Your task to perform on an android device: check the backup settings in the google photos Image 0: 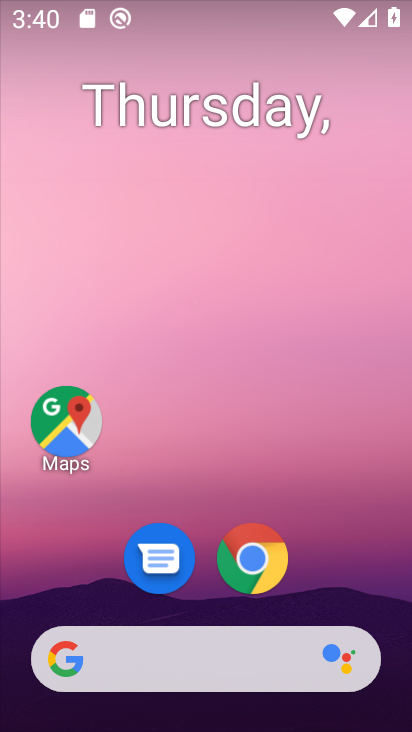
Step 0: drag from (293, 509) to (281, 135)
Your task to perform on an android device: check the backup settings in the google photos Image 1: 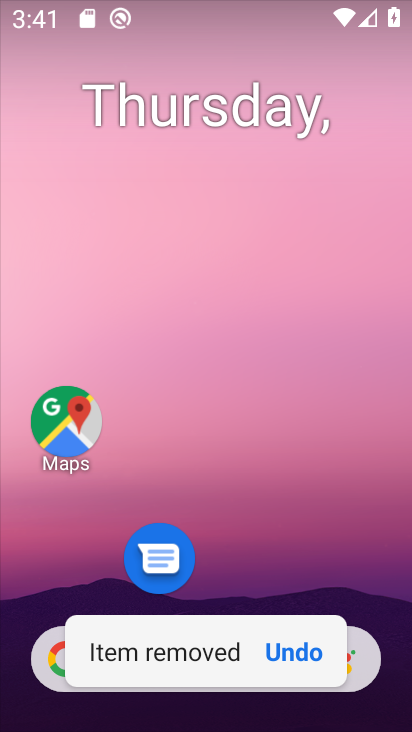
Step 1: drag from (322, 531) to (327, 37)
Your task to perform on an android device: check the backup settings in the google photos Image 2: 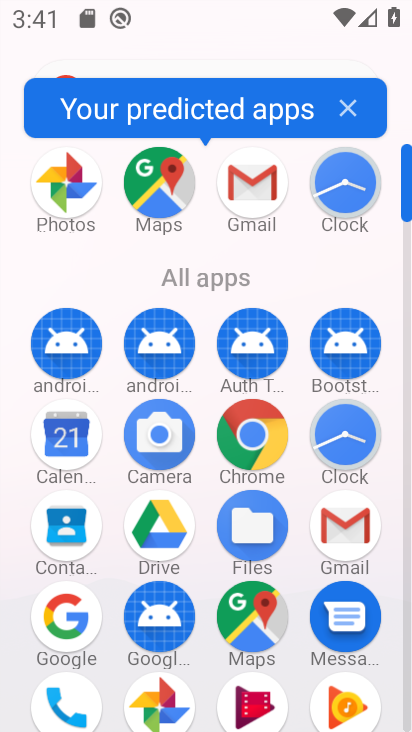
Step 2: click (175, 704)
Your task to perform on an android device: check the backup settings in the google photos Image 3: 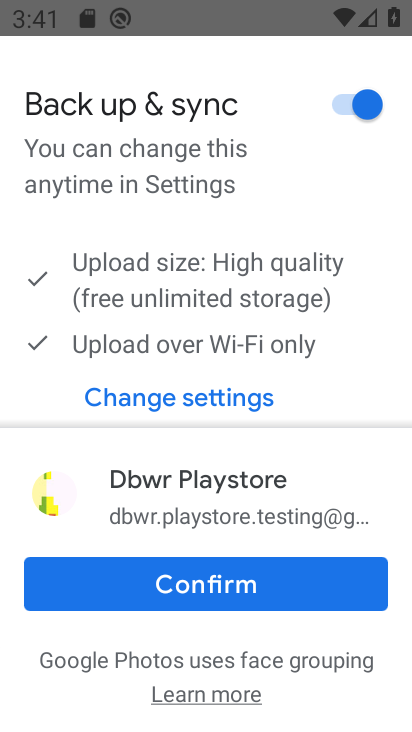
Step 3: click (215, 591)
Your task to perform on an android device: check the backup settings in the google photos Image 4: 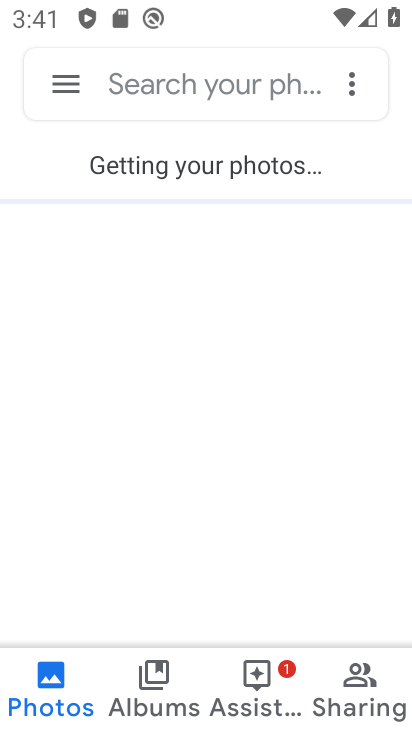
Step 4: click (69, 95)
Your task to perform on an android device: check the backup settings in the google photos Image 5: 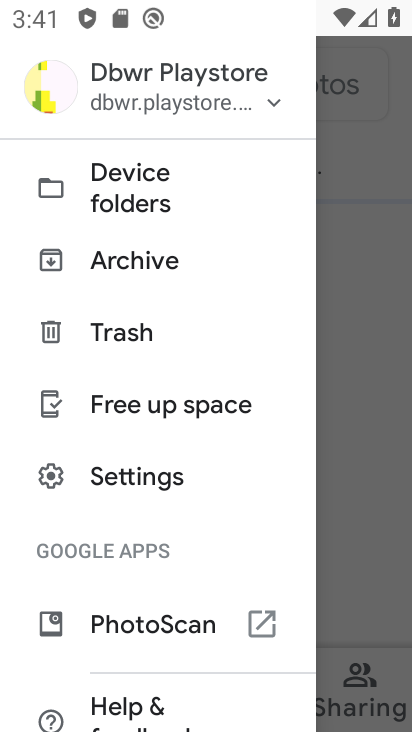
Step 5: click (117, 482)
Your task to perform on an android device: check the backup settings in the google photos Image 6: 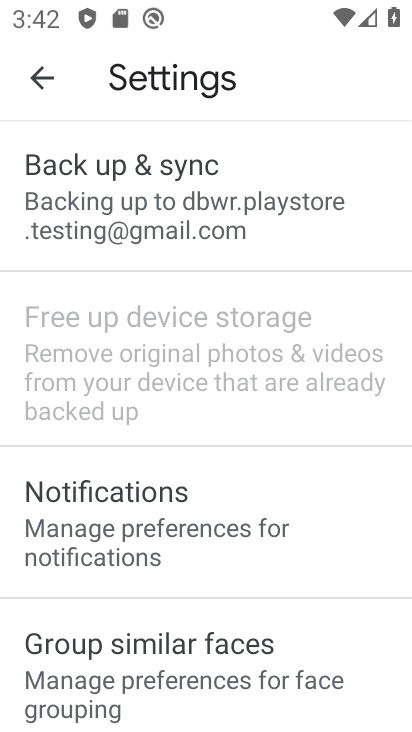
Step 6: click (119, 233)
Your task to perform on an android device: check the backup settings in the google photos Image 7: 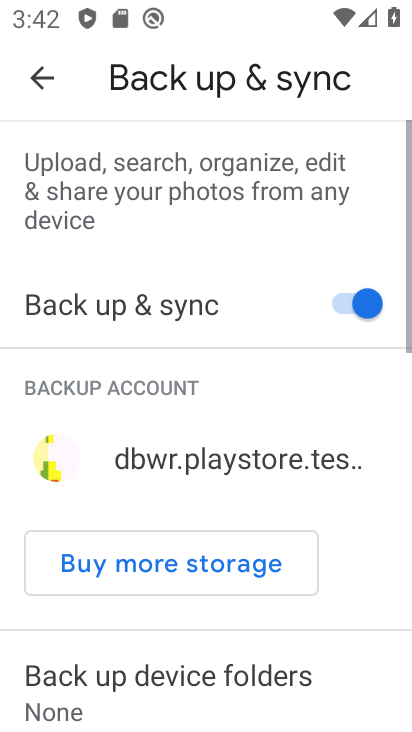
Step 7: task complete